Your task to perform on an android device: refresh tabs in the chrome app Image 0: 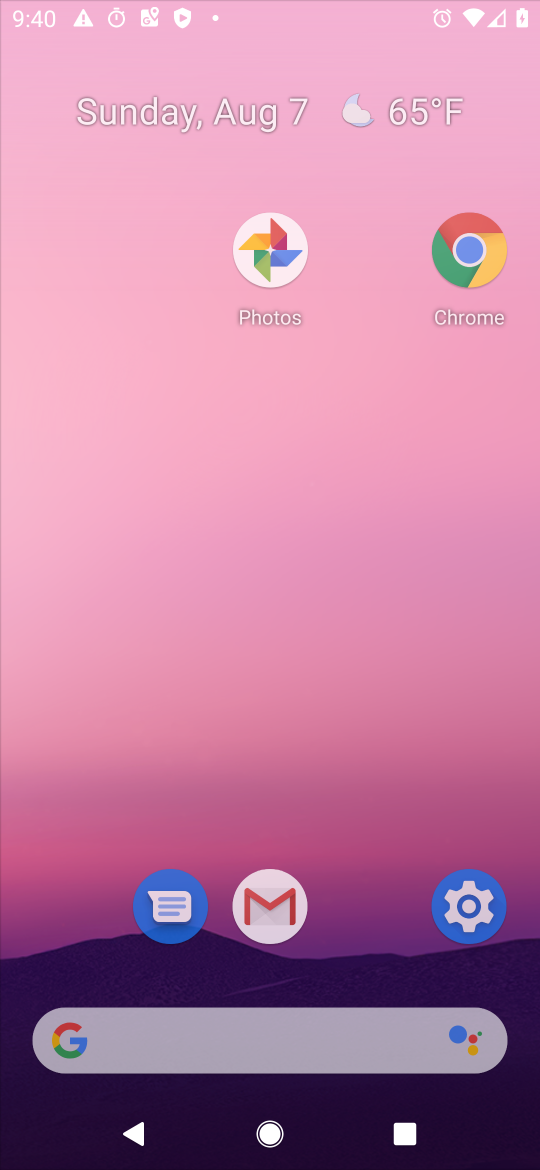
Step 0: press home button
Your task to perform on an android device: refresh tabs in the chrome app Image 1: 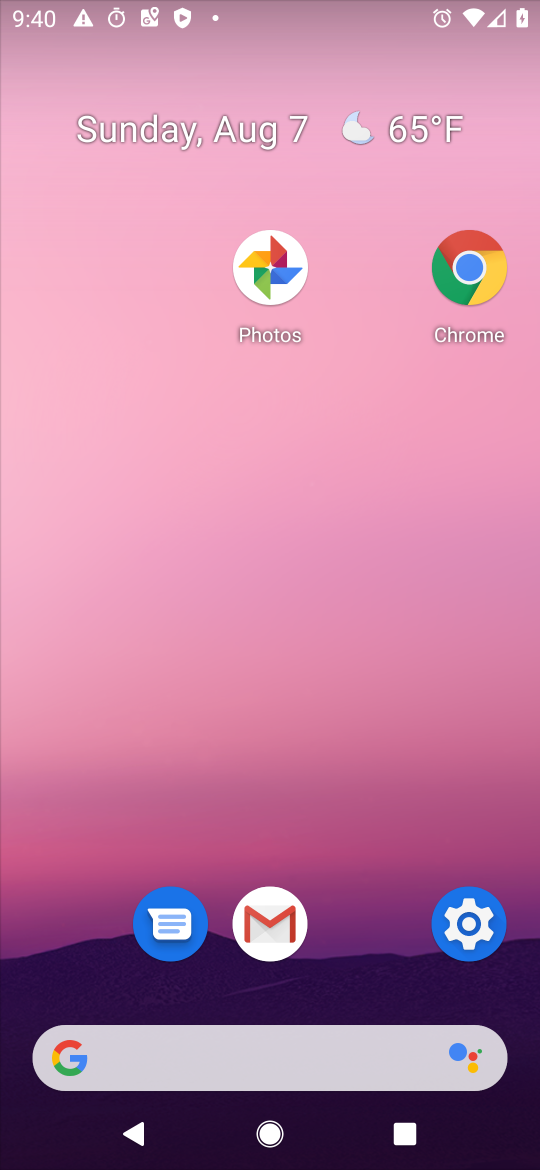
Step 1: drag from (282, 1060) to (356, 323)
Your task to perform on an android device: refresh tabs in the chrome app Image 2: 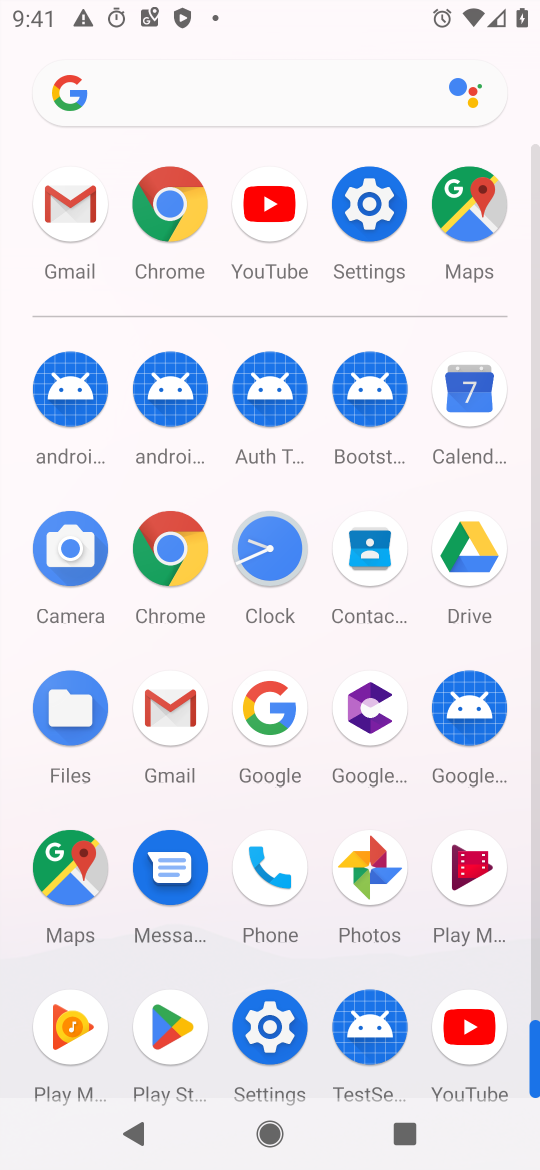
Step 2: click (188, 195)
Your task to perform on an android device: refresh tabs in the chrome app Image 3: 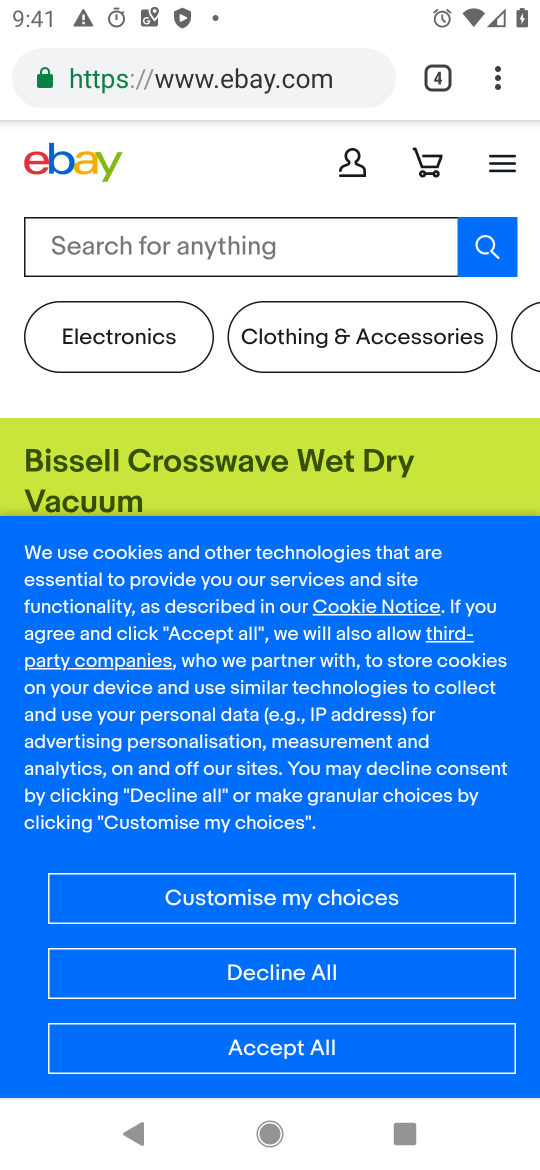
Step 3: click (495, 78)
Your task to perform on an android device: refresh tabs in the chrome app Image 4: 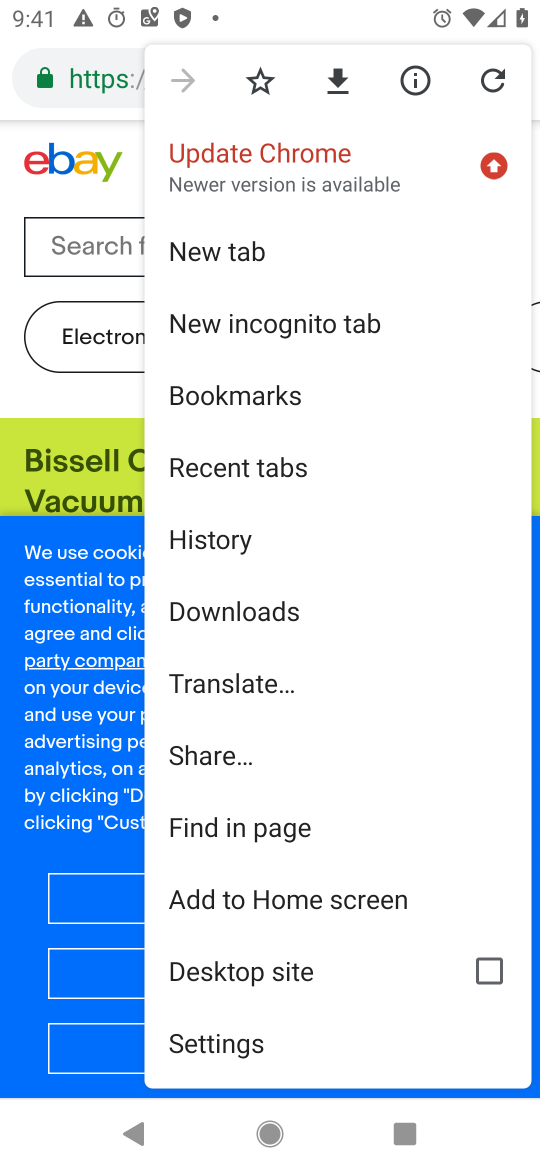
Step 4: click (491, 90)
Your task to perform on an android device: refresh tabs in the chrome app Image 5: 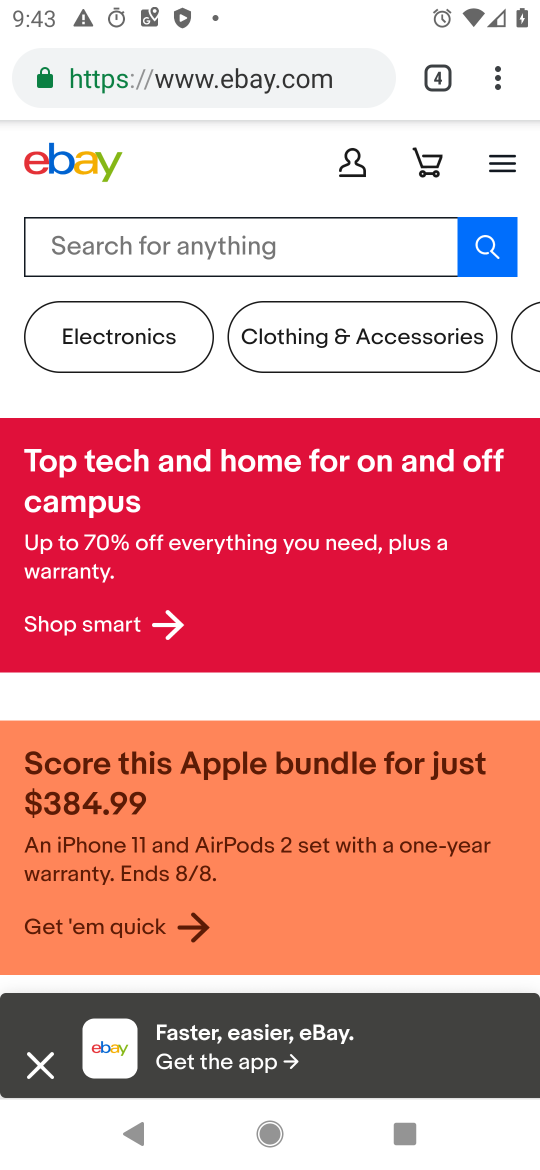
Step 5: task complete